Your task to perform on an android device: set default search engine in the chrome app Image 0: 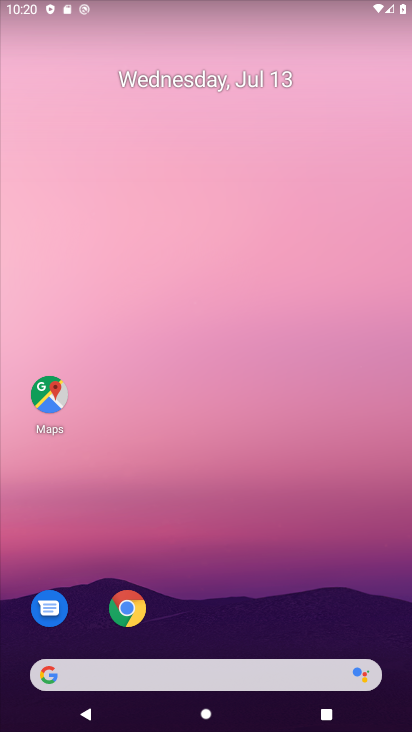
Step 0: press home button
Your task to perform on an android device: set default search engine in the chrome app Image 1: 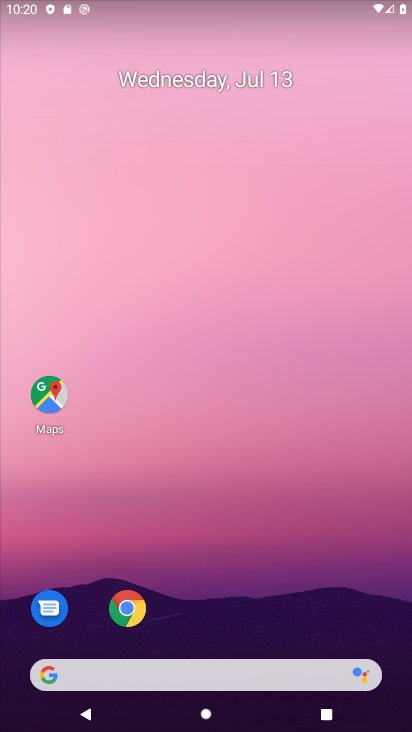
Step 1: click (139, 606)
Your task to perform on an android device: set default search engine in the chrome app Image 2: 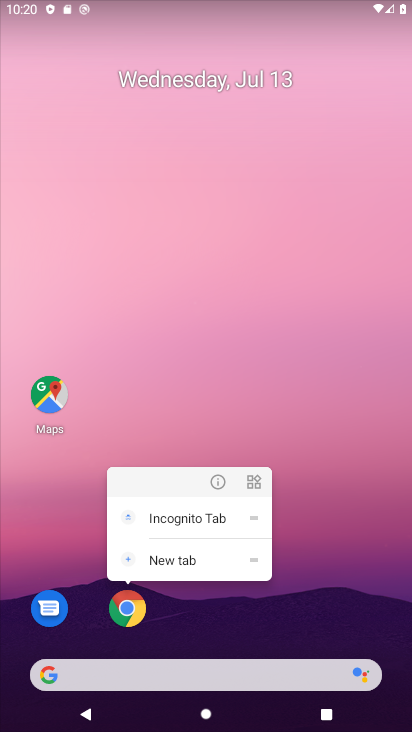
Step 2: click (136, 614)
Your task to perform on an android device: set default search engine in the chrome app Image 3: 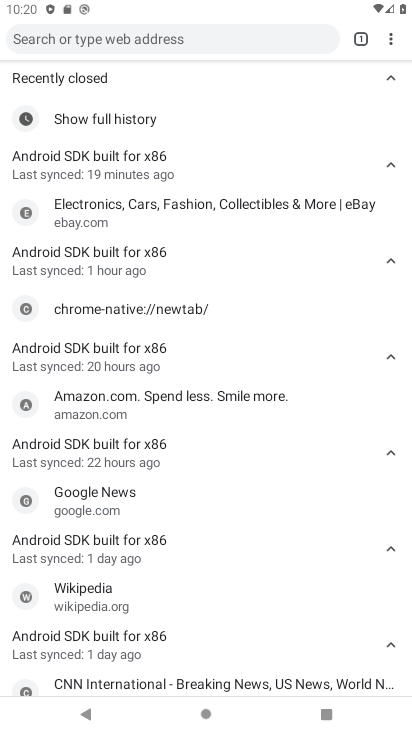
Step 3: drag from (392, 35) to (242, 322)
Your task to perform on an android device: set default search engine in the chrome app Image 4: 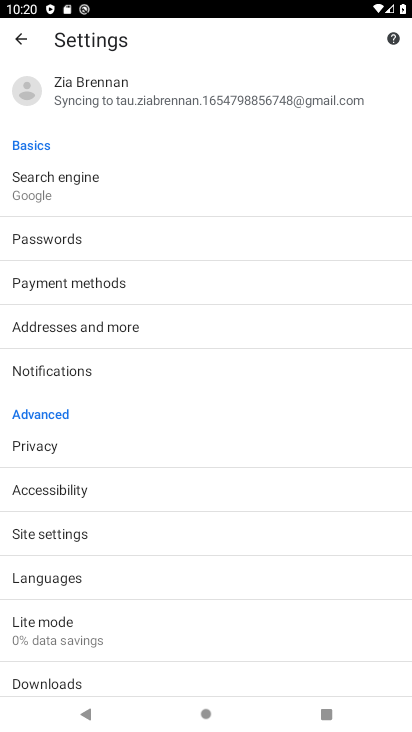
Step 4: click (62, 187)
Your task to perform on an android device: set default search engine in the chrome app Image 5: 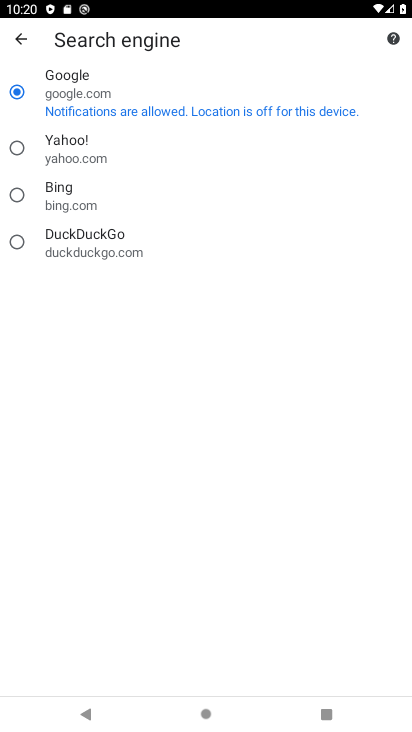
Step 5: task complete